Your task to perform on an android device: What's the weather? Image 0: 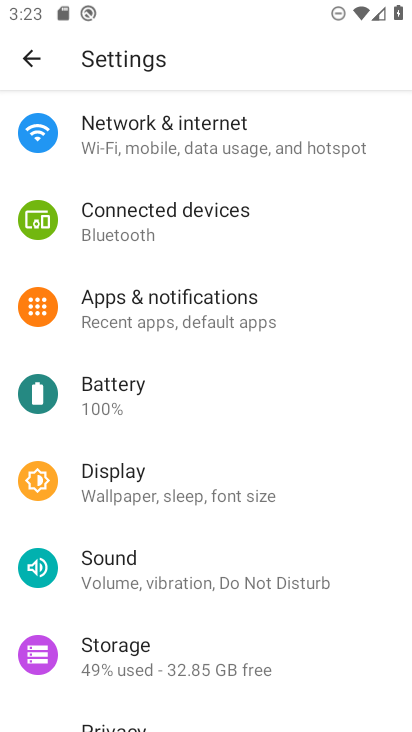
Step 0: press home button
Your task to perform on an android device: What's the weather? Image 1: 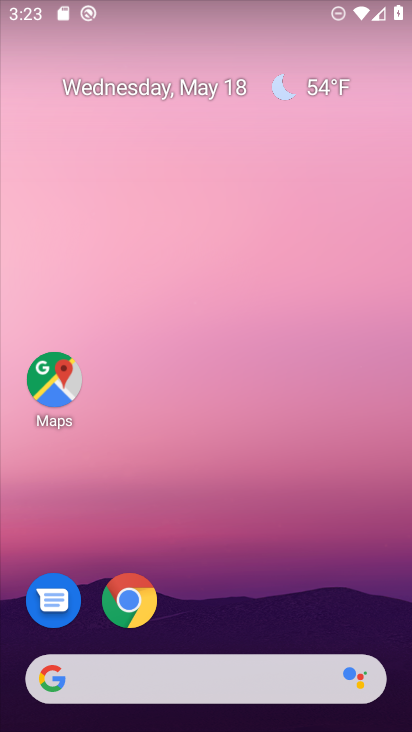
Step 1: click (306, 86)
Your task to perform on an android device: What's the weather? Image 2: 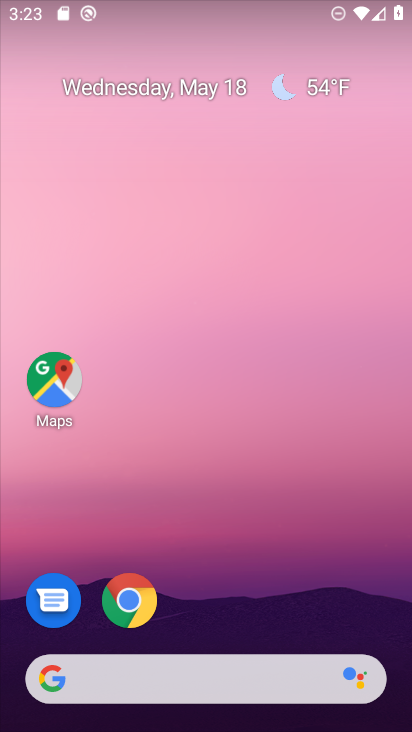
Step 2: click (303, 91)
Your task to perform on an android device: What's the weather? Image 3: 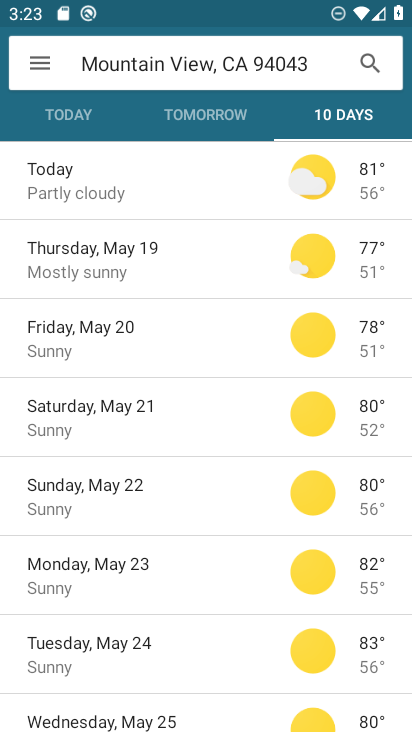
Step 3: drag from (103, 443) to (101, 373)
Your task to perform on an android device: What's the weather? Image 4: 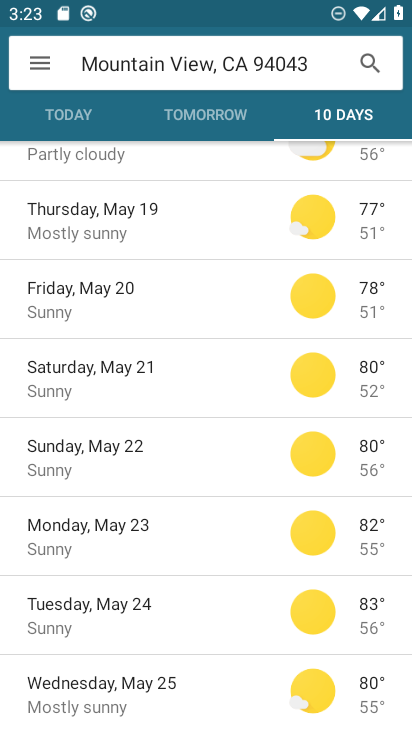
Step 4: click (72, 119)
Your task to perform on an android device: What's the weather? Image 5: 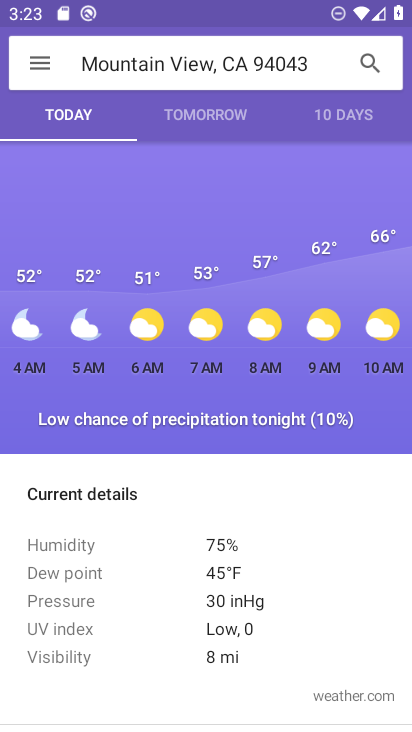
Step 5: task complete